Your task to perform on an android device: toggle translation in the chrome app Image 0: 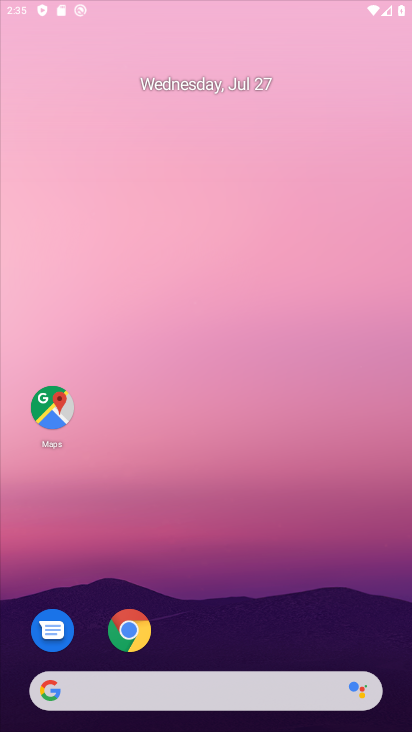
Step 0: press home button
Your task to perform on an android device: toggle translation in the chrome app Image 1: 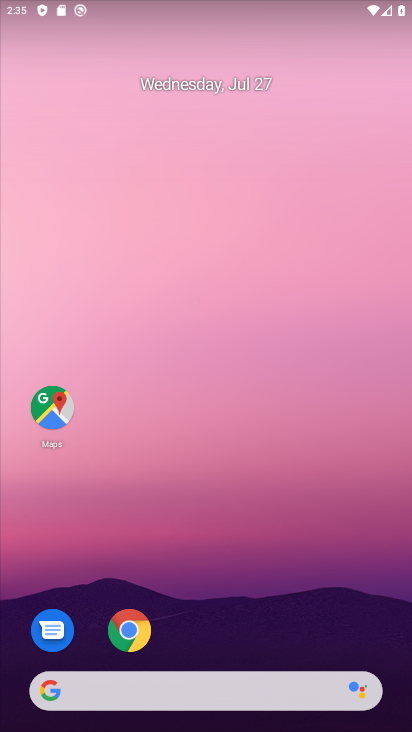
Step 1: press home button
Your task to perform on an android device: toggle translation in the chrome app Image 2: 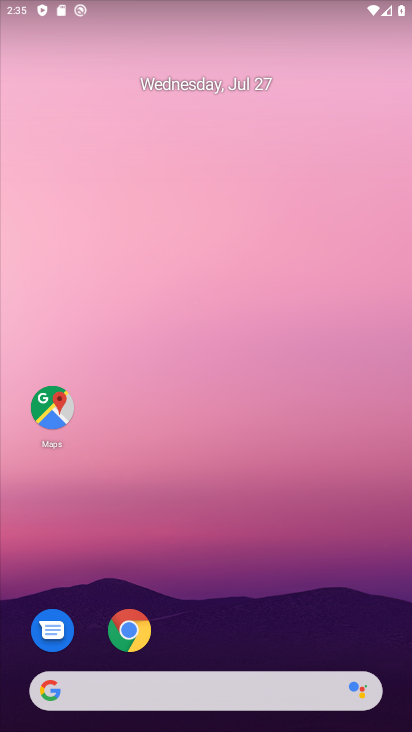
Step 2: drag from (250, 653) to (214, 118)
Your task to perform on an android device: toggle translation in the chrome app Image 3: 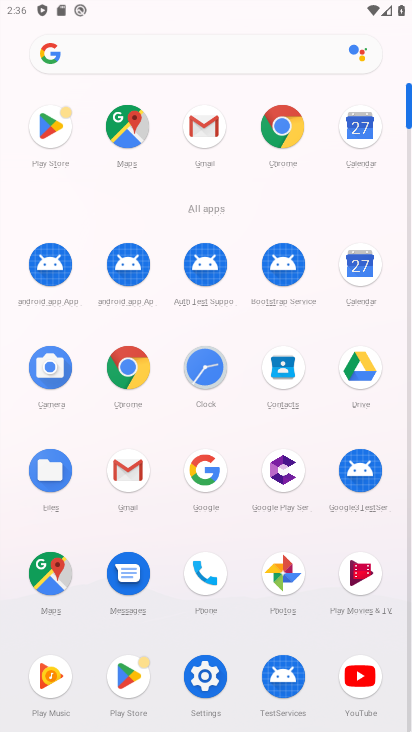
Step 3: click (285, 132)
Your task to perform on an android device: toggle translation in the chrome app Image 4: 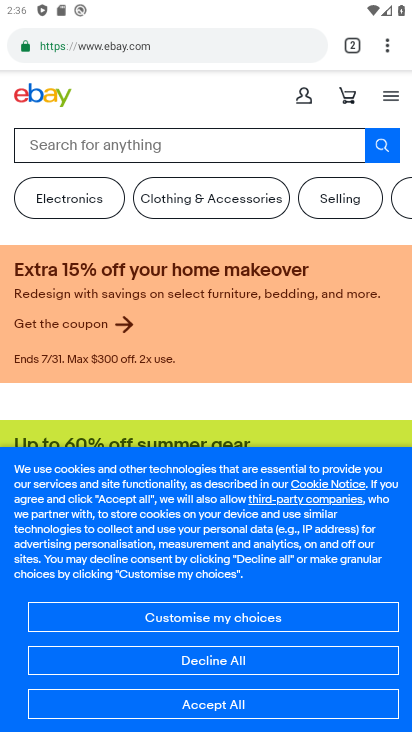
Step 4: drag from (386, 50) to (227, 583)
Your task to perform on an android device: toggle translation in the chrome app Image 5: 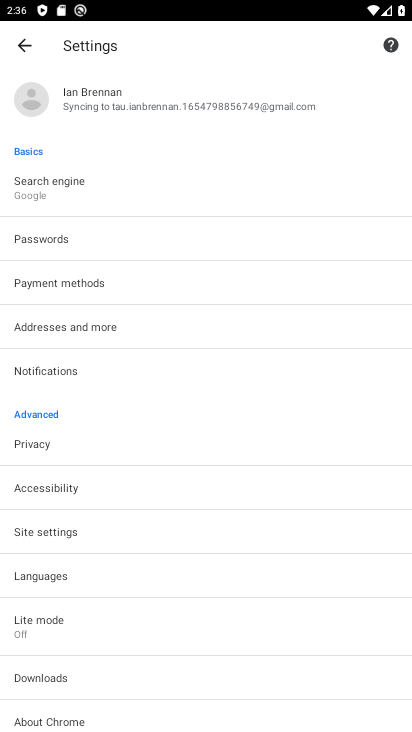
Step 5: click (43, 580)
Your task to perform on an android device: toggle translation in the chrome app Image 6: 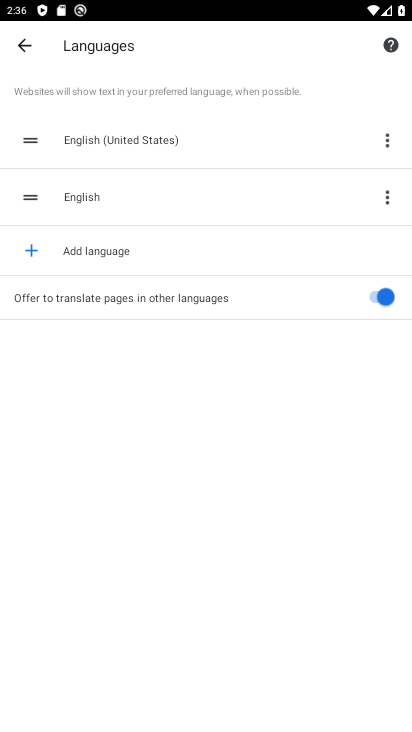
Step 6: click (387, 304)
Your task to perform on an android device: toggle translation in the chrome app Image 7: 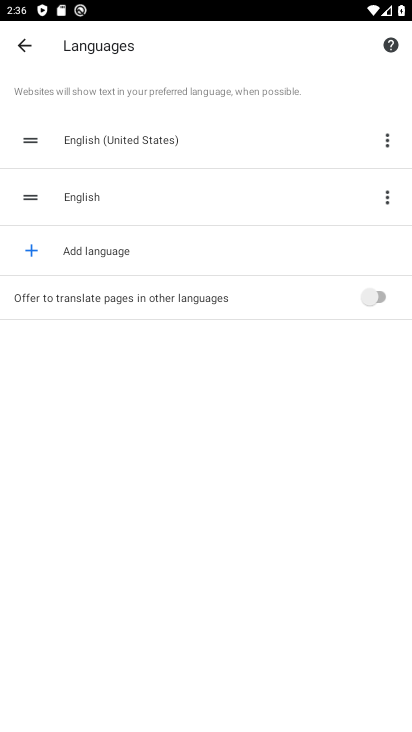
Step 7: task complete